Your task to perform on an android device: turn off data saver in the chrome app Image 0: 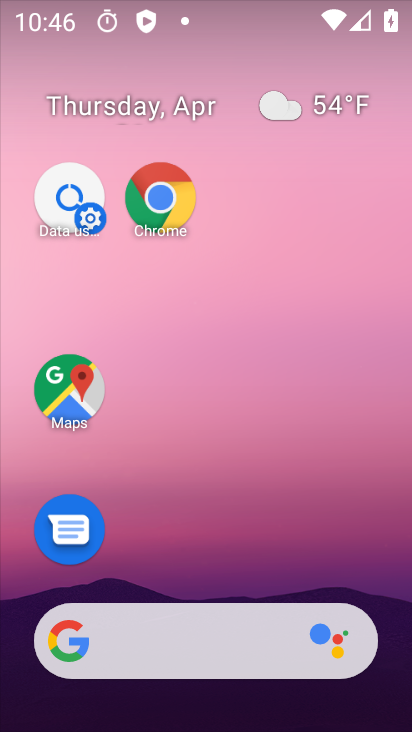
Step 0: drag from (205, 580) to (205, 27)
Your task to perform on an android device: turn off data saver in the chrome app Image 1: 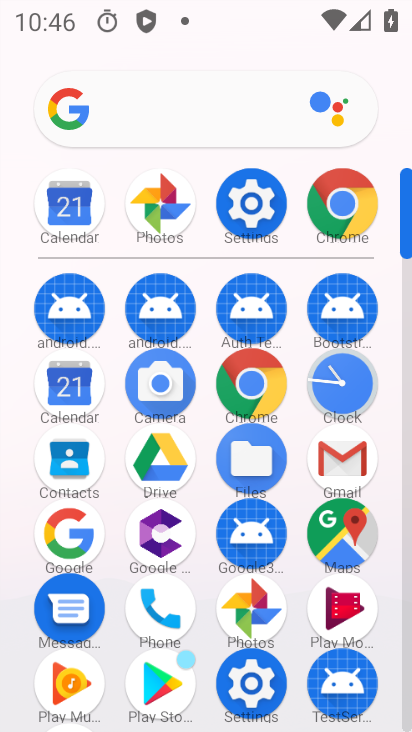
Step 1: click (336, 210)
Your task to perform on an android device: turn off data saver in the chrome app Image 2: 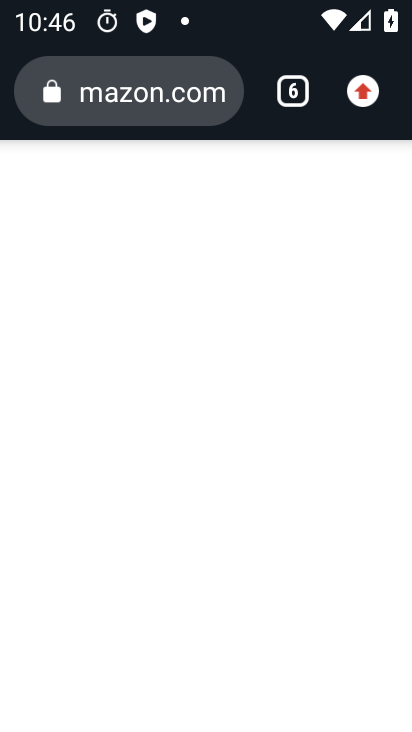
Step 2: drag from (366, 102) to (198, 570)
Your task to perform on an android device: turn off data saver in the chrome app Image 3: 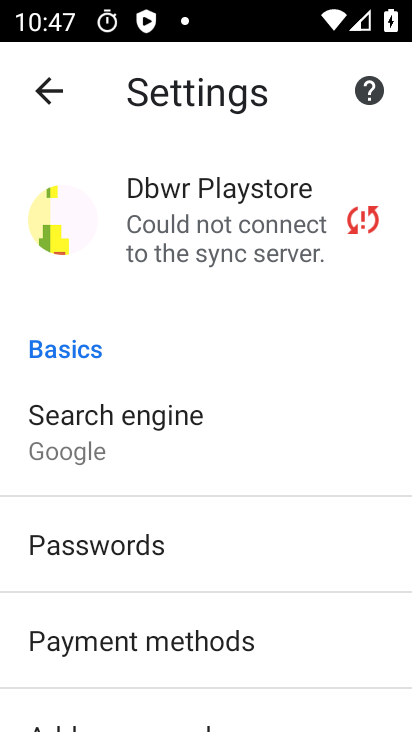
Step 3: drag from (222, 657) to (172, 284)
Your task to perform on an android device: turn off data saver in the chrome app Image 4: 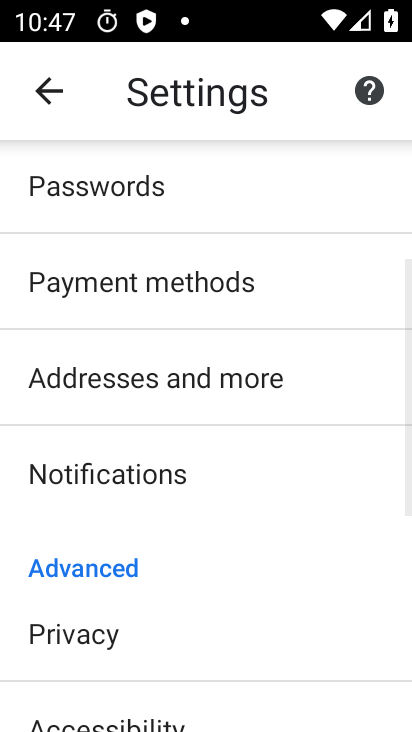
Step 4: drag from (165, 634) to (168, 254)
Your task to perform on an android device: turn off data saver in the chrome app Image 5: 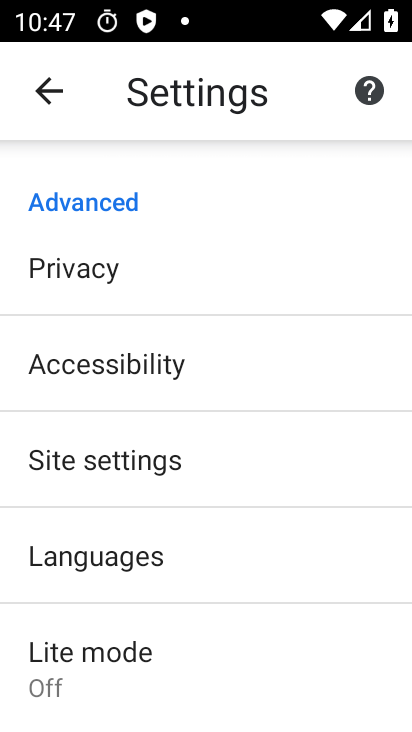
Step 5: click (121, 649)
Your task to perform on an android device: turn off data saver in the chrome app Image 6: 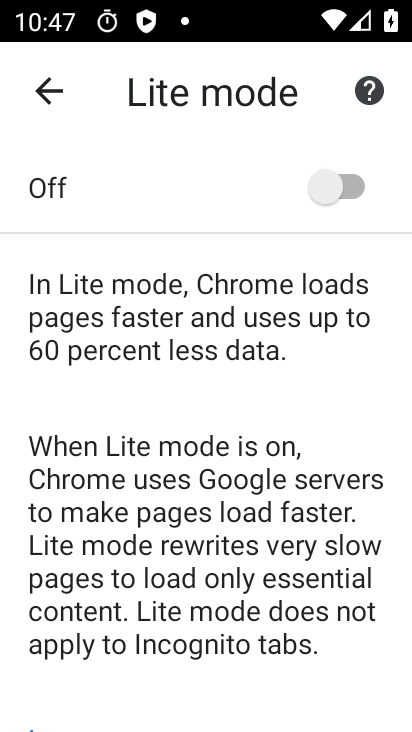
Step 6: task complete